Your task to perform on an android device: set default search engine in the chrome app Image 0: 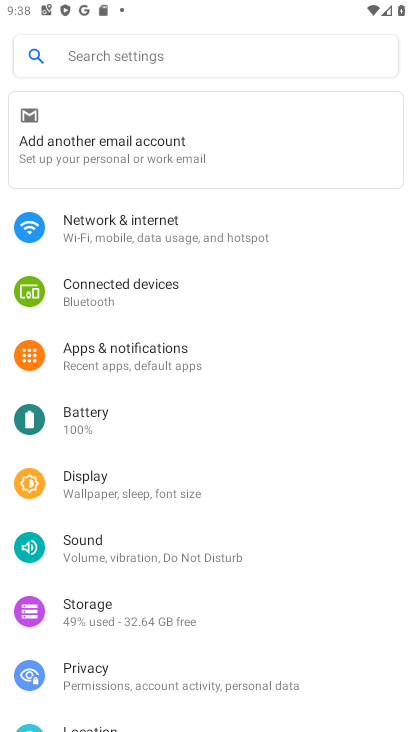
Step 0: press home button
Your task to perform on an android device: set default search engine in the chrome app Image 1: 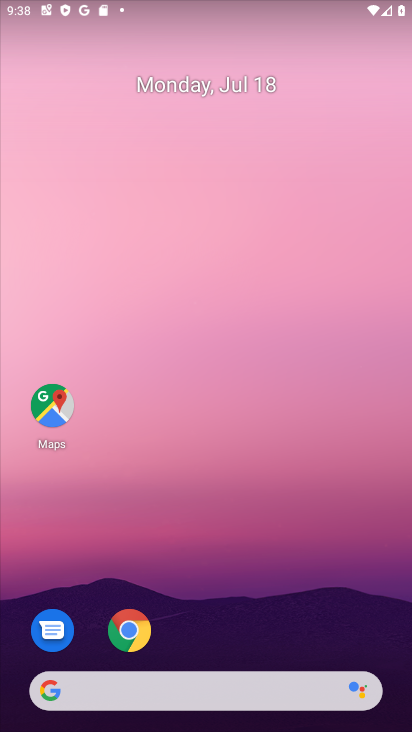
Step 1: drag from (399, 668) to (206, 12)
Your task to perform on an android device: set default search engine in the chrome app Image 2: 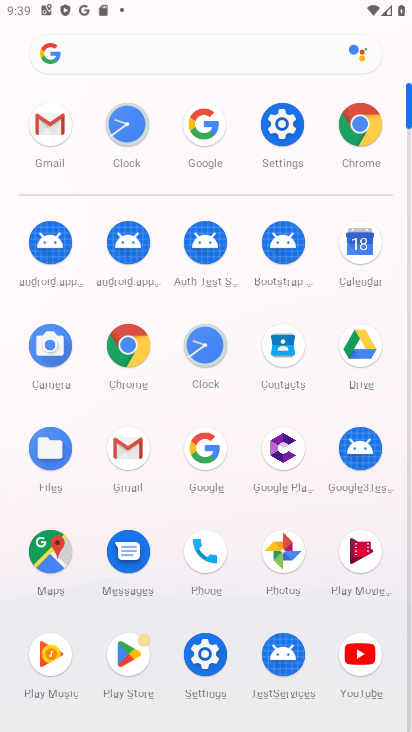
Step 2: click (124, 359)
Your task to perform on an android device: set default search engine in the chrome app Image 3: 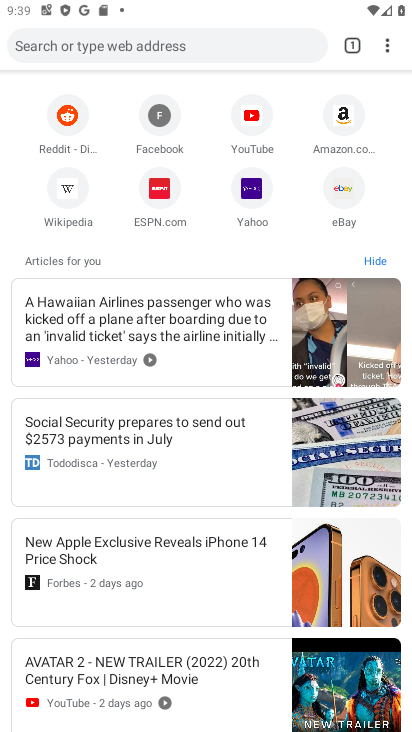
Step 3: click (383, 39)
Your task to perform on an android device: set default search engine in the chrome app Image 4: 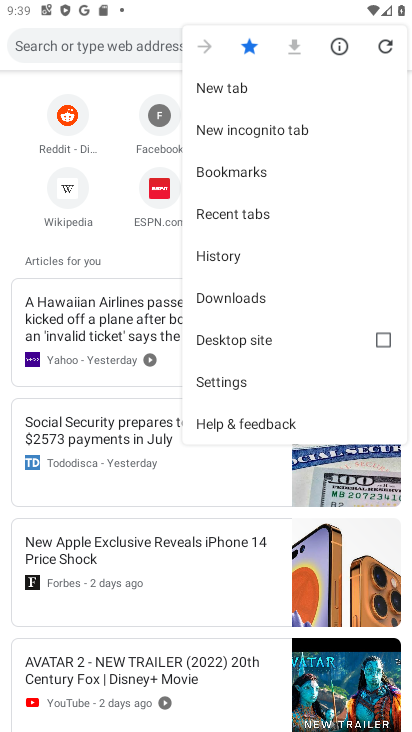
Step 4: click (239, 382)
Your task to perform on an android device: set default search engine in the chrome app Image 5: 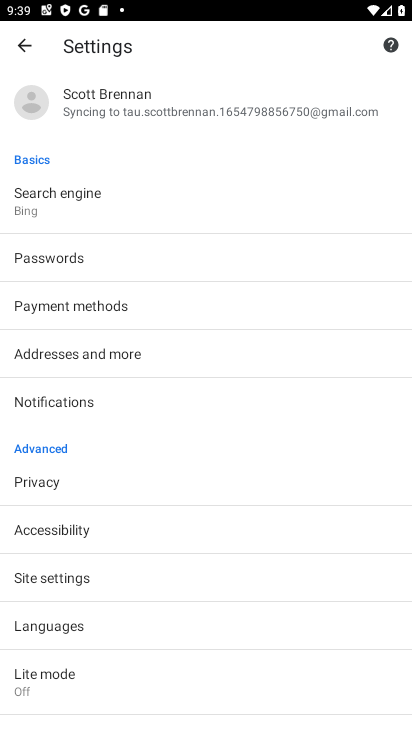
Step 5: click (150, 213)
Your task to perform on an android device: set default search engine in the chrome app Image 6: 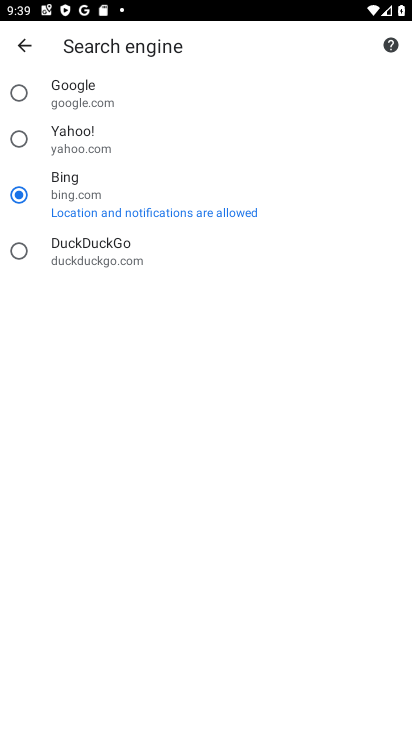
Step 6: click (71, 94)
Your task to perform on an android device: set default search engine in the chrome app Image 7: 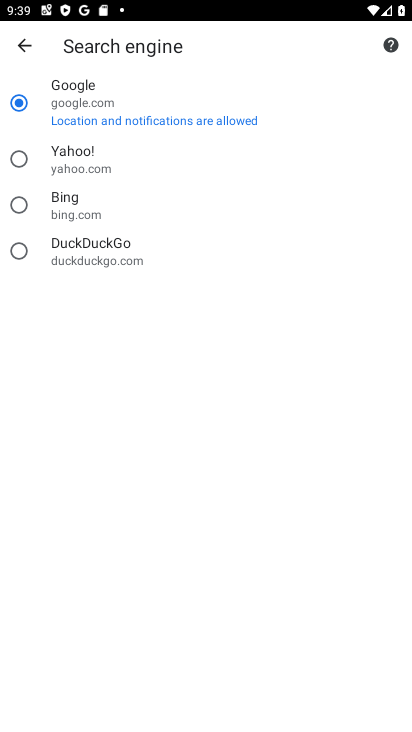
Step 7: task complete